Your task to perform on an android device: change the clock display to digital Image 0: 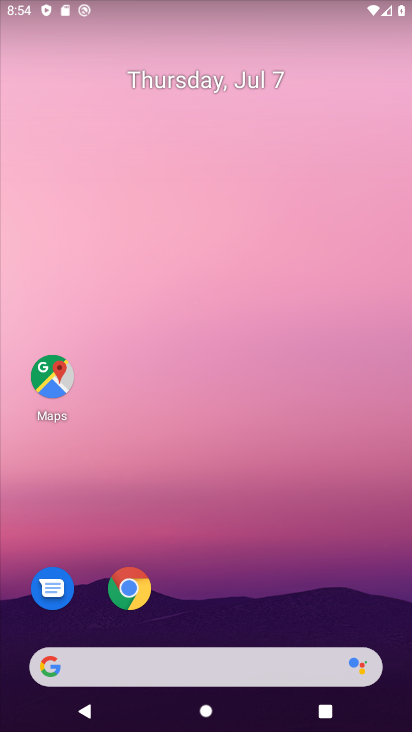
Step 0: drag from (310, 569) to (276, 18)
Your task to perform on an android device: change the clock display to digital Image 1: 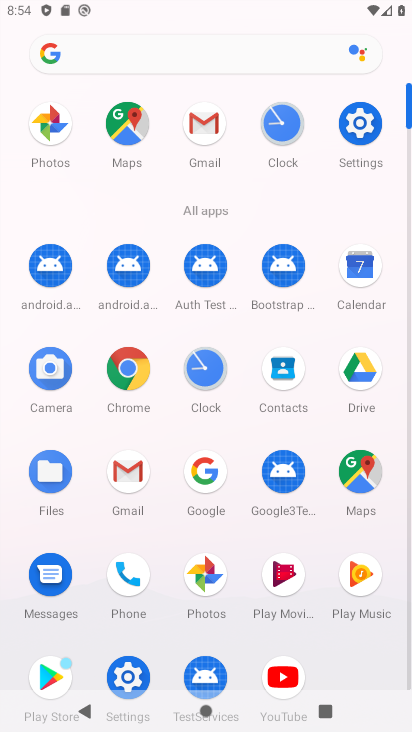
Step 1: click (275, 122)
Your task to perform on an android device: change the clock display to digital Image 2: 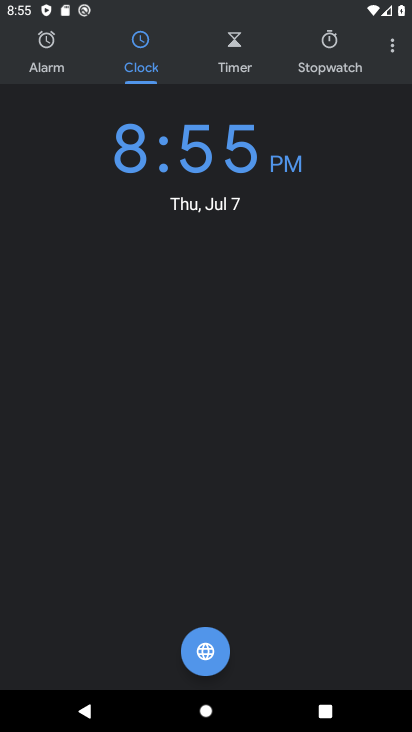
Step 2: click (395, 46)
Your task to perform on an android device: change the clock display to digital Image 3: 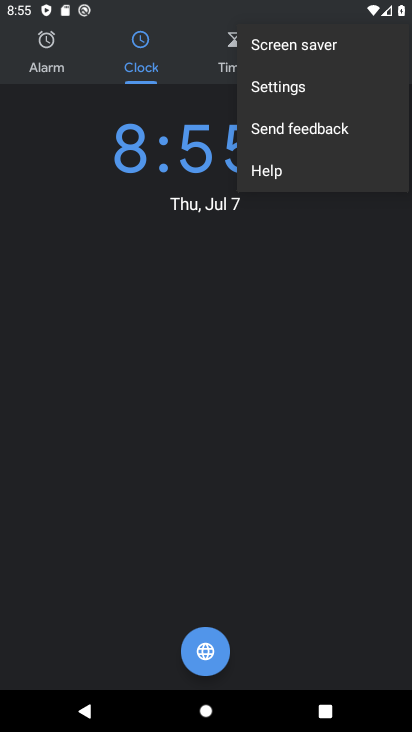
Step 3: click (300, 88)
Your task to perform on an android device: change the clock display to digital Image 4: 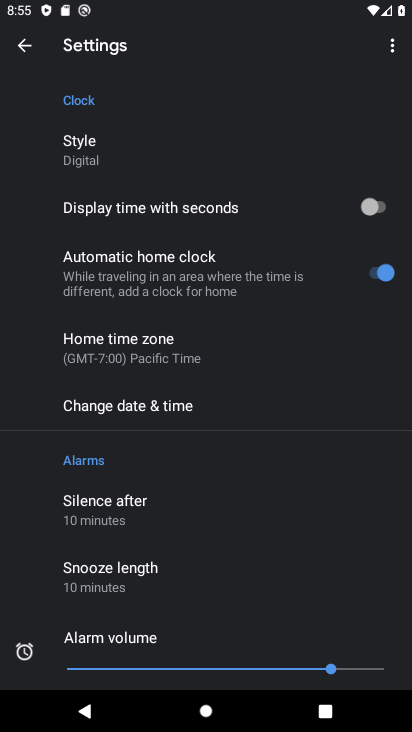
Step 4: click (103, 150)
Your task to perform on an android device: change the clock display to digital Image 5: 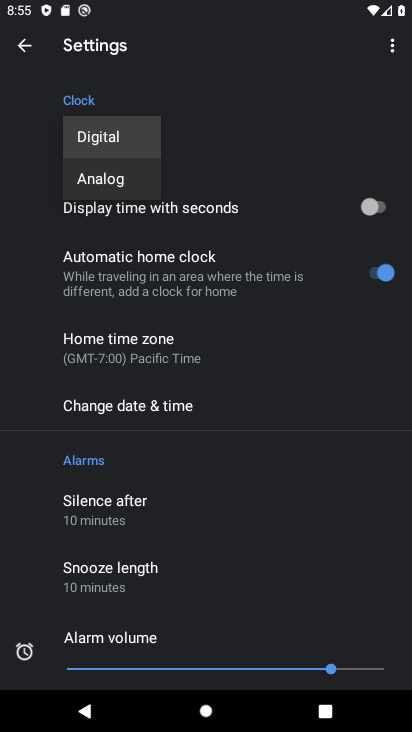
Step 5: click (156, 147)
Your task to perform on an android device: change the clock display to digital Image 6: 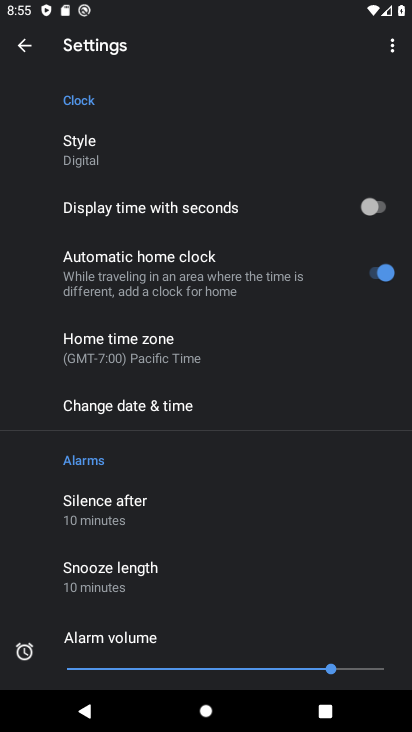
Step 6: task complete